Your task to perform on an android device: toggle improve location accuracy Image 0: 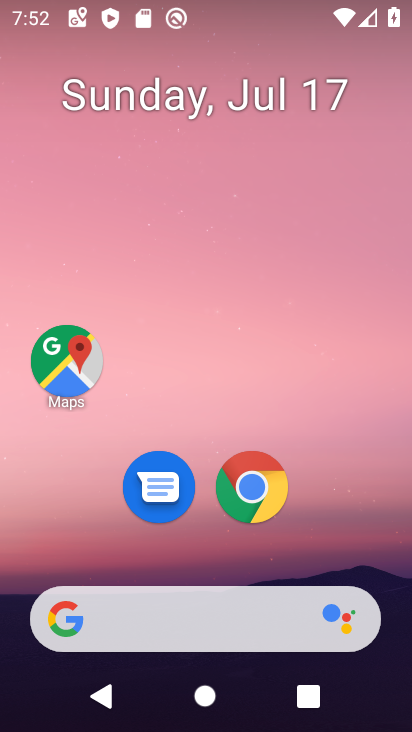
Step 0: drag from (219, 562) to (299, 0)
Your task to perform on an android device: toggle improve location accuracy Image 1: 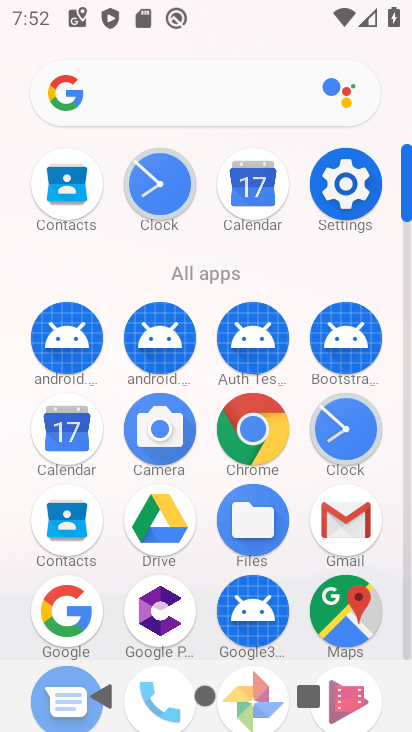
Step 1: click (352, 183)
Your task to perform on an android device: toggle improve location accuracy Image 2: 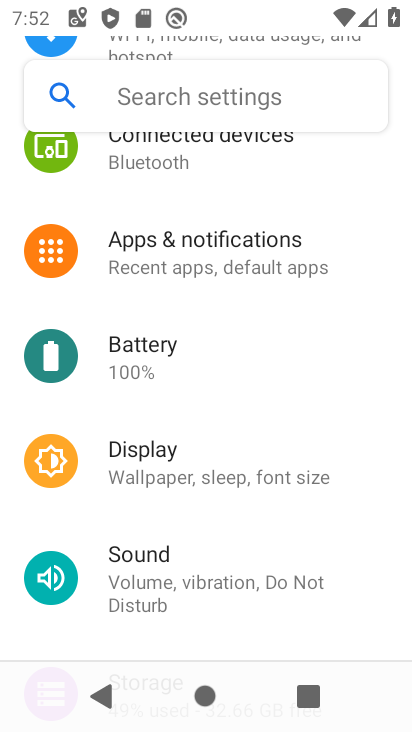
Step 2: drag from (286, 221) to (240, 112)
Your task to perform on an android device: toggle improve location accuracy Image 3: 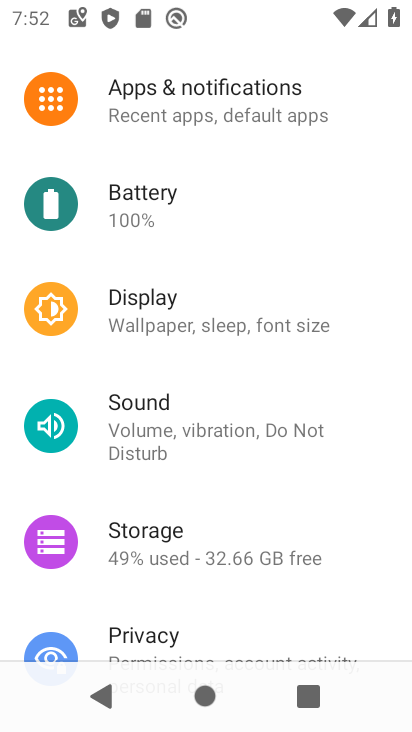
Step 3: drag from (175, 589) to (263, 62)
Your task to perform on an android device: toggle improve location accuracy Image 4: 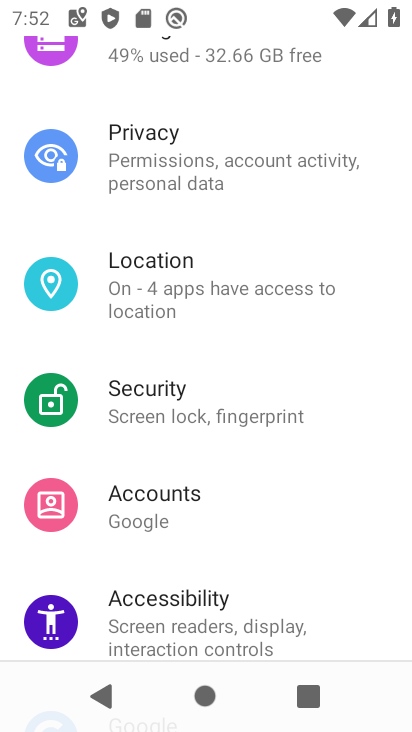
Step 4: click (158, 286)
Your task to perform on an android device: toggle improve location accuracy Image 5: 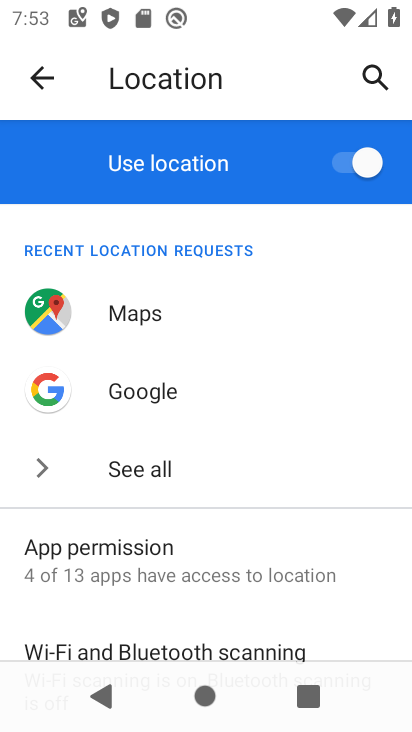
Step 5: drag from (148, 590) to (206, 250)
Your task to perform on an android device: toggle improve location accuracy Image 6: 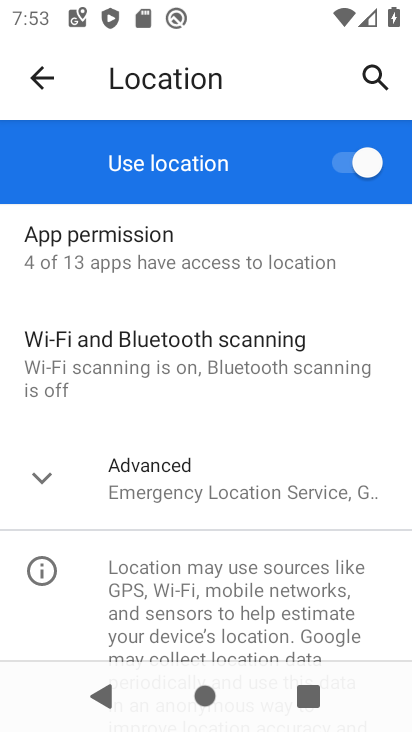
Step 6: click (124, 461)
Your task to perform on an android device: toggle improve location accuracy Image 7: 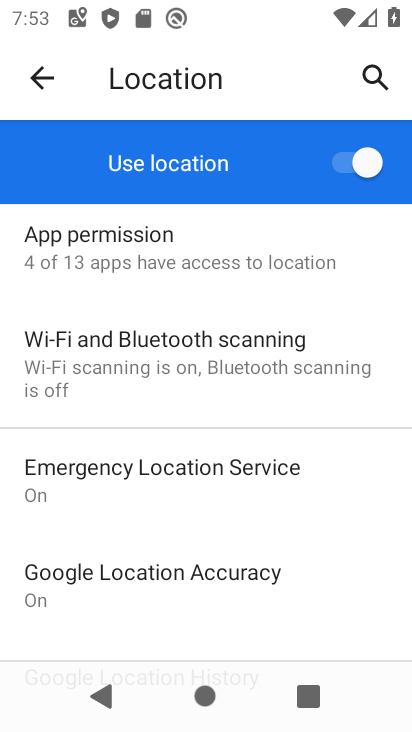
Step 7: click (181, 567)
Your task to perform on an android device: toggle improve location accuracy Image 8: 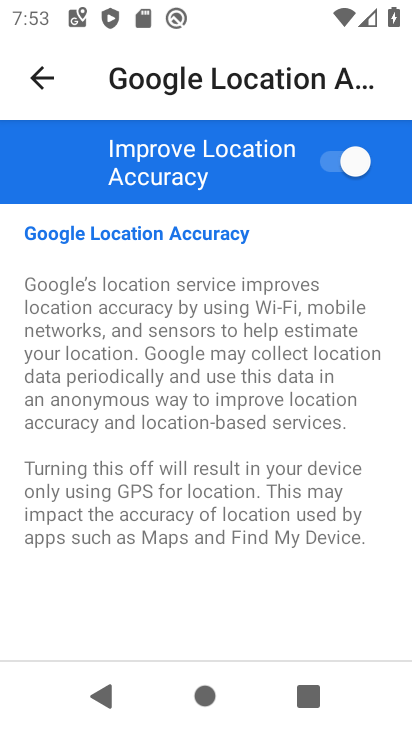
Step 8: click (344, 156)
Your task to perform on an android device: toggle improve location accuracy Image 9: 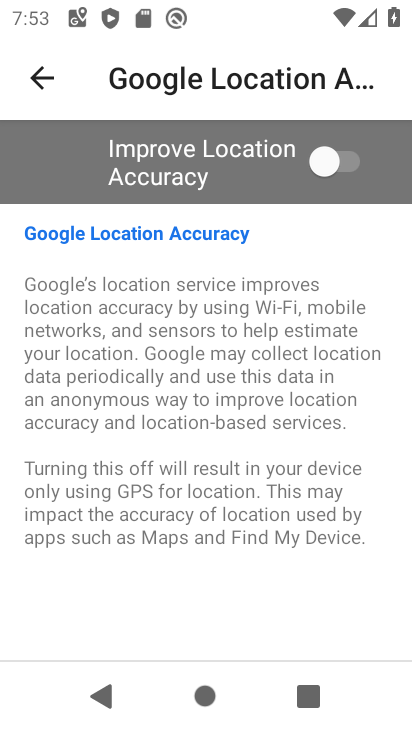
Step 9: task complete